Your task to perform on an android device: toggle location history Image 0: 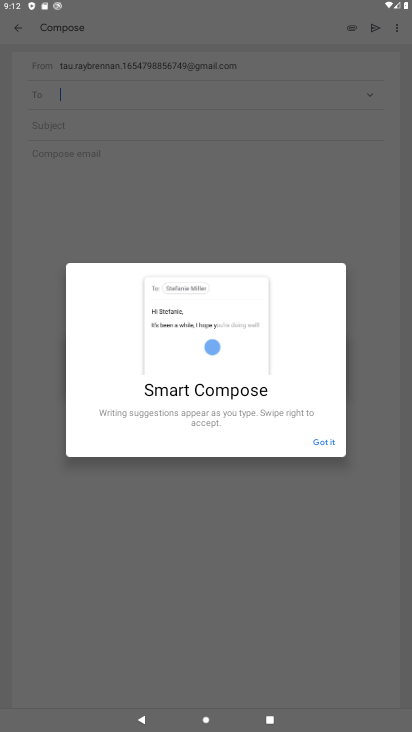
Step 0: press home button
Your task to perform on an android device: toggle location history Image 1: 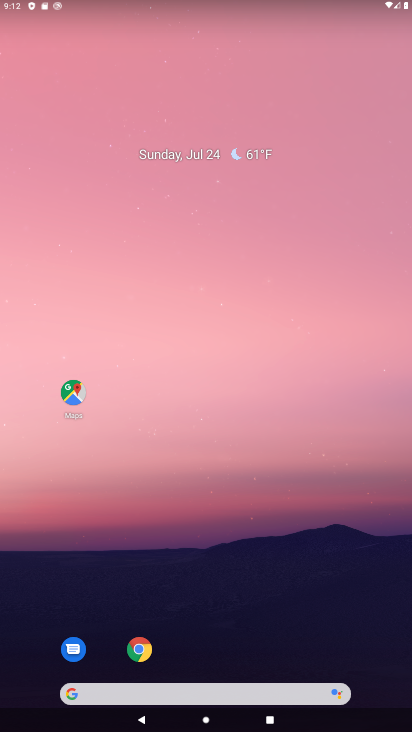
Step 1: drag from (300, 632) to (253, 58)
Your task to perform on an android device: toggle location history Image 2: 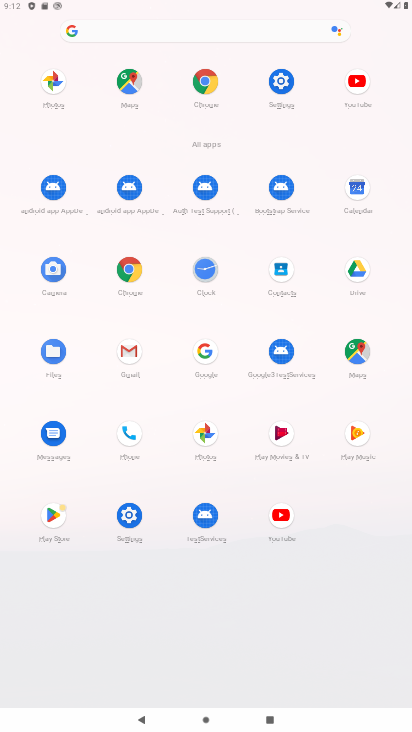
Step 2: click (281, 79)
Your task to perform on an android device: toggle location history Image 3: 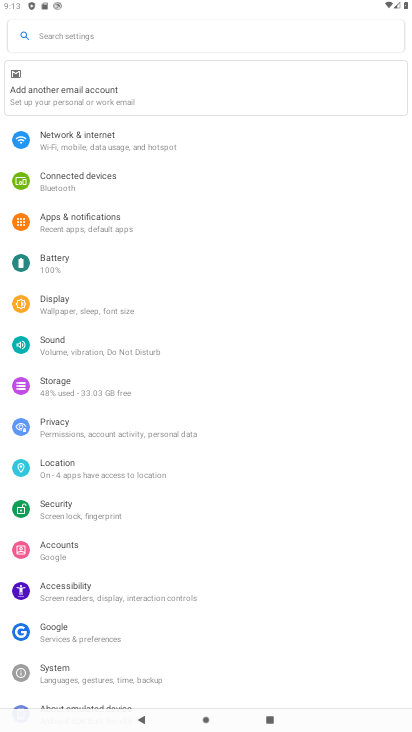
Step 3: click (92, 483)
Your task to perform on an android device: toggle location history Image 4: 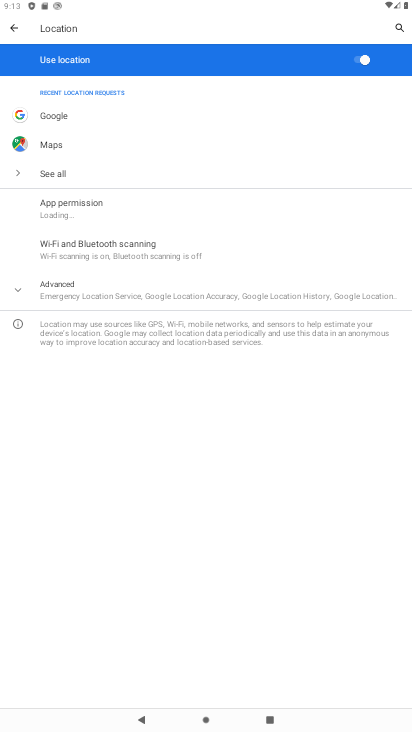
Step 4: click (74, 294)
Your task to perform on an android device: toggle location history Image 5: 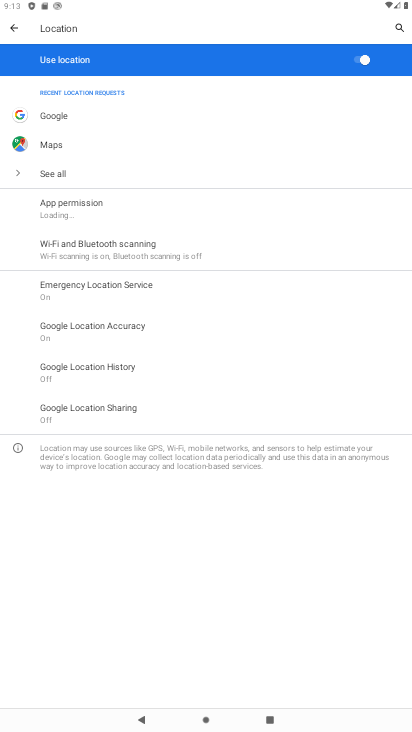
Step 5: click (126, 371)
Your task to perform on an android device: toggle location history Image 6: 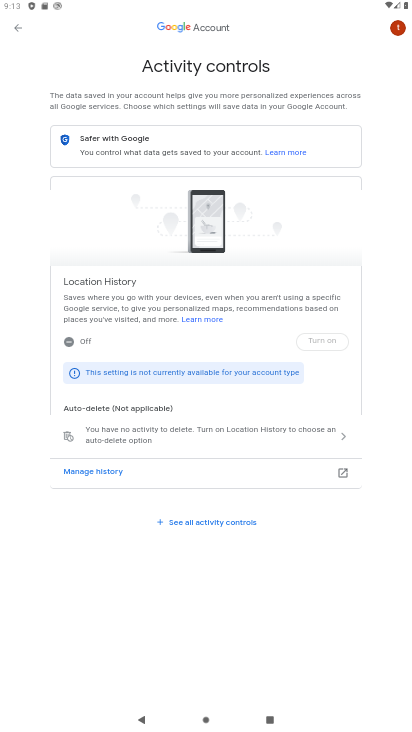
Step 6: click (330, 339)
Your task to perform on an android device: toggle location history Image 7: 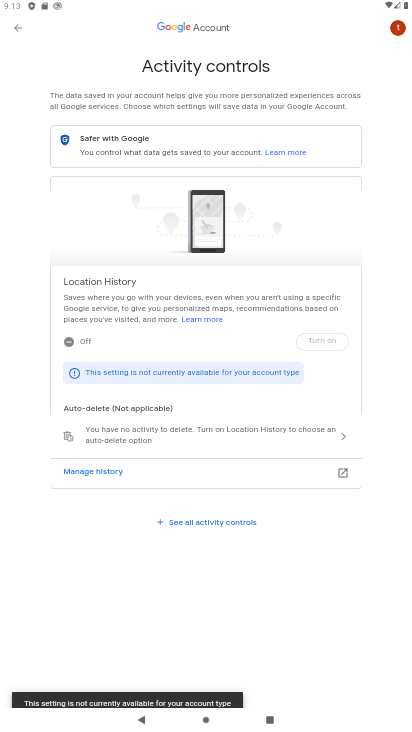
Step 7: click (89, 346)
Your task to perform on an android device: toggle location history Image 8: 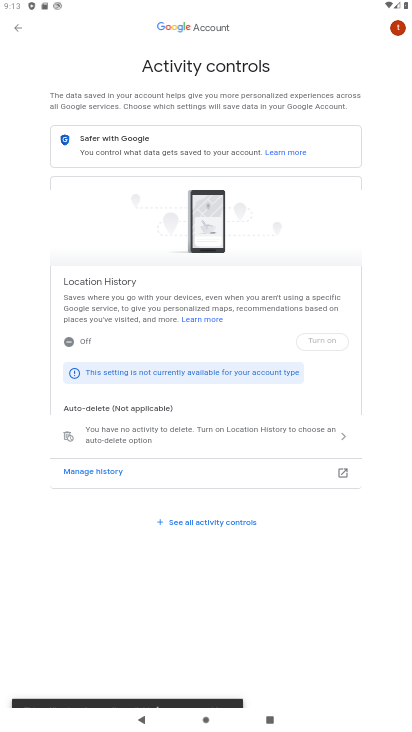
Step 8: click (89, 346)
Your task to perform on an android device: toggle location history Image 9: 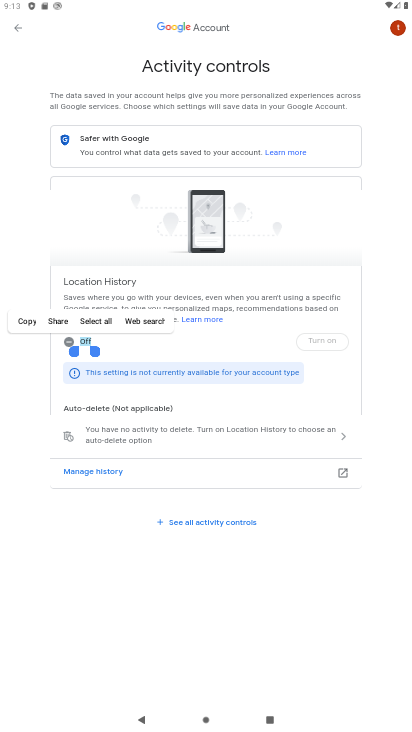
Step 9: click (289, 348)
Your task to perform on an android device: toggle location history Image 10: 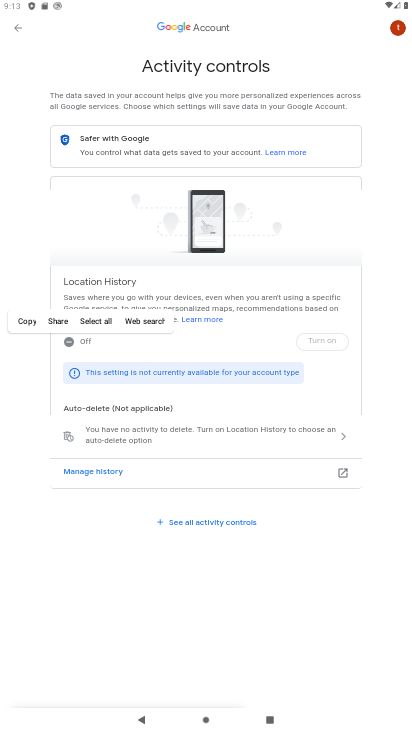
Step 10: click (328, 354)
Your task to perform on an android device: toggle location history Image 11: 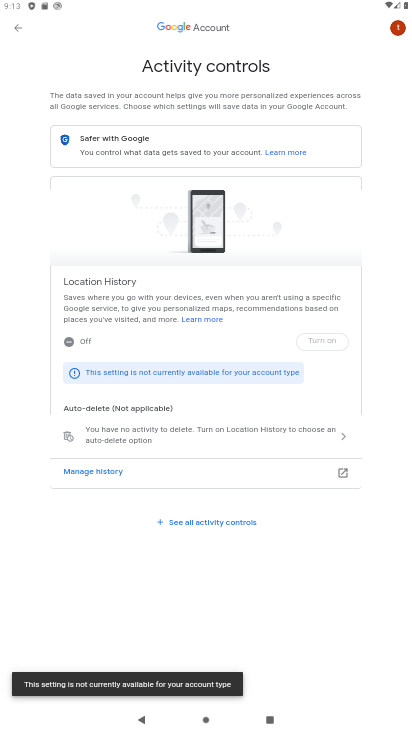
Step 11: click (334, 343)
Your task to perform on an android device: toggle location history Image 12: 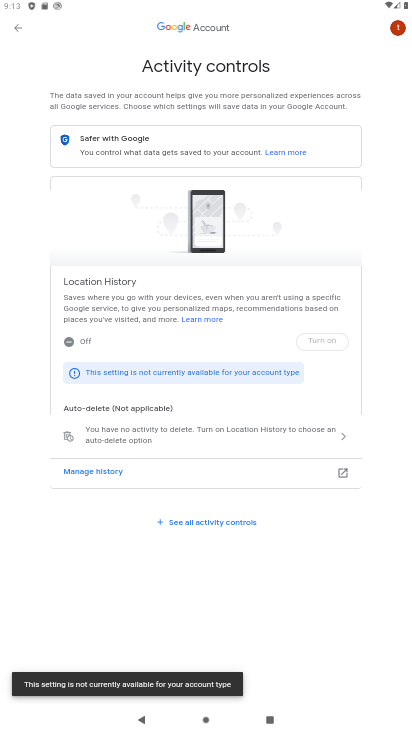
Step 12: click (334, 343)
Your task to perform on an android device: toggle location history Image 13: 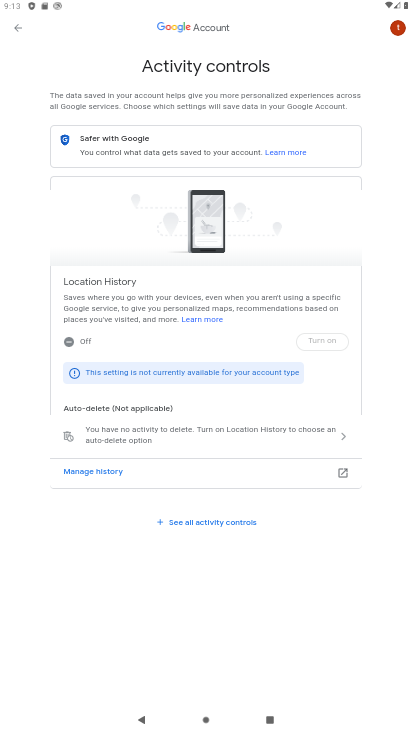
Step 13: task complete